Your task to perform on an android device: turn on priority inbox in the gmail app Image 0: 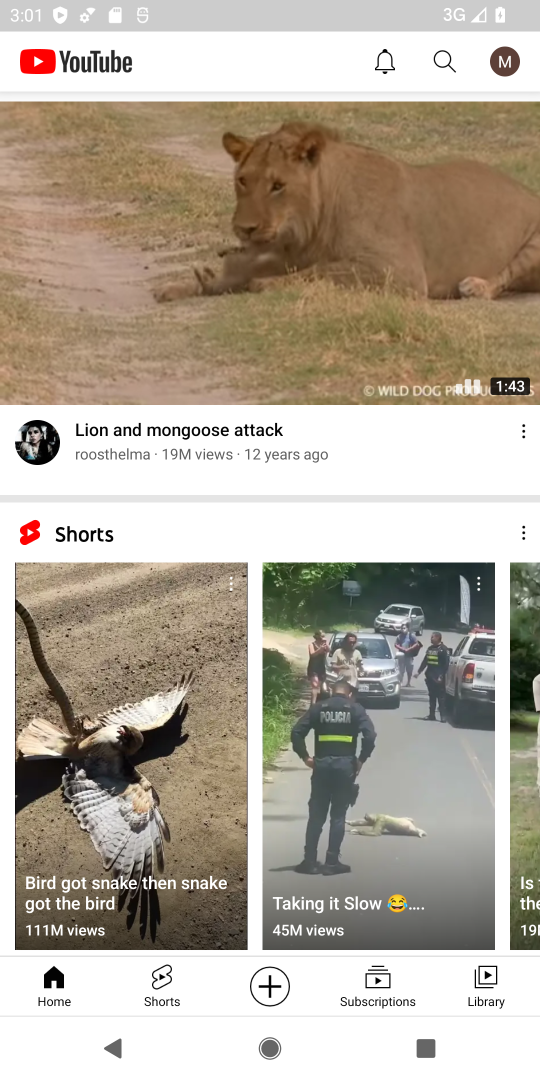
Step 0: press home button
Your task to perform on an android device: turn on priority inbox in the gmail app Image 1: 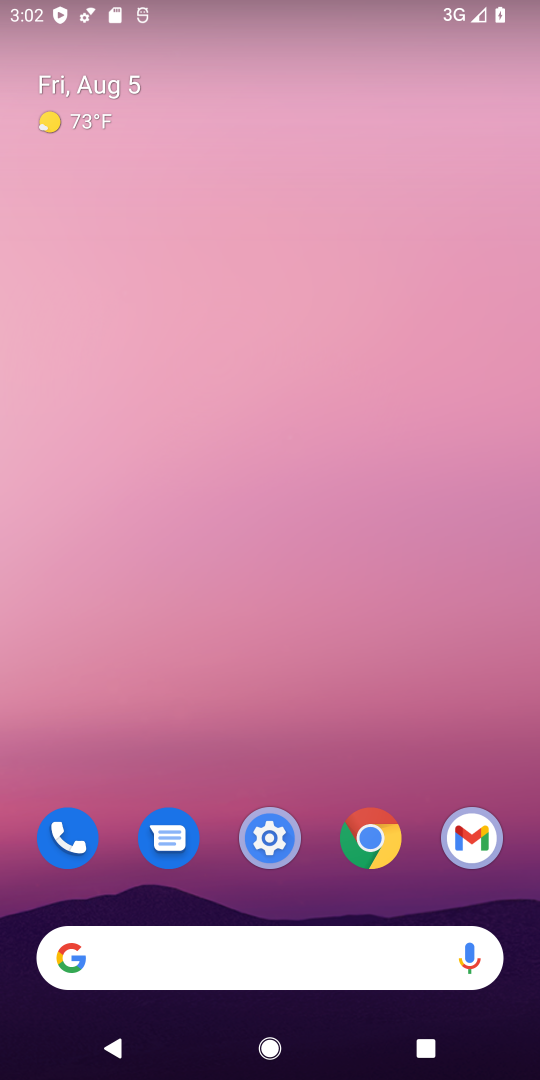
Step 1: drag from (274, 884) to (488, 332)
Your task to perform on an android device: turn on priority inbox in the gmail app Image 2: 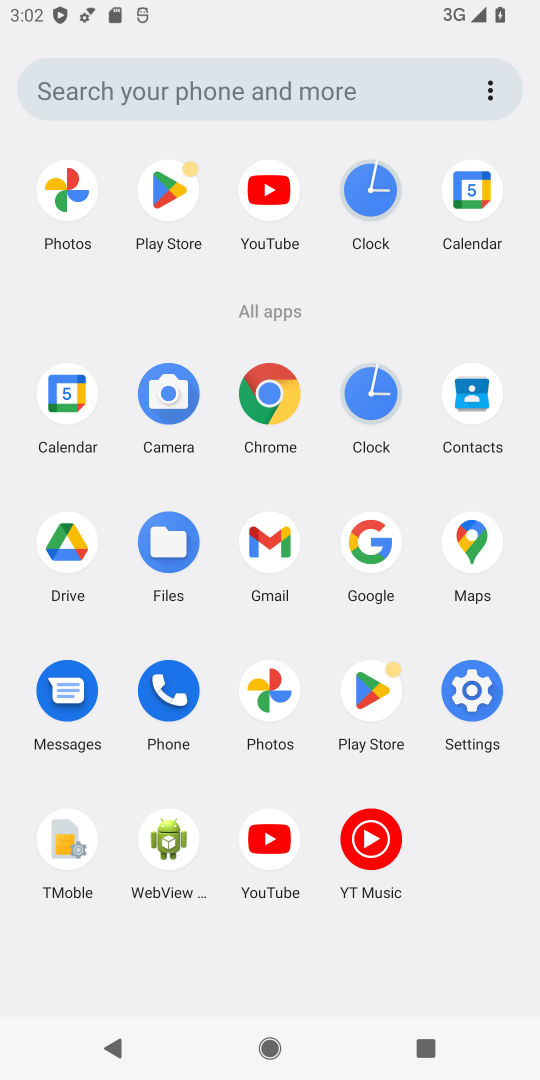
Step 2: click (270, 529)
Your task to perform on an android device: turn on priority inbox in the gmail app Image 3: 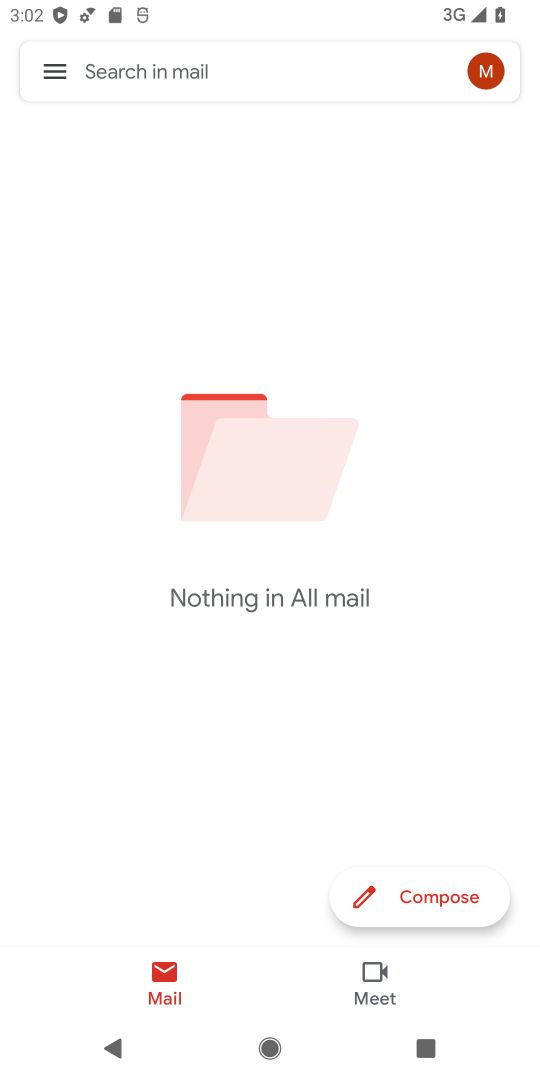
Step 3: click (55, 67)
Your task to perform on an android device: turn on priority inbox in the gmail app Image 4: 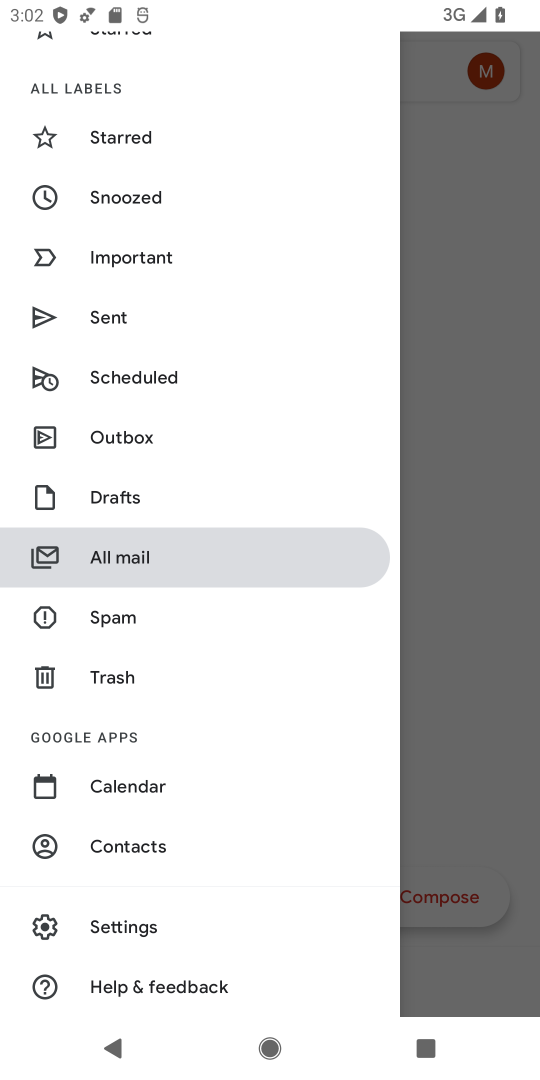
Step 4: click (148, 924)
Your task to perform on an android device: turn on priority inbox in the gmail app Image 5: 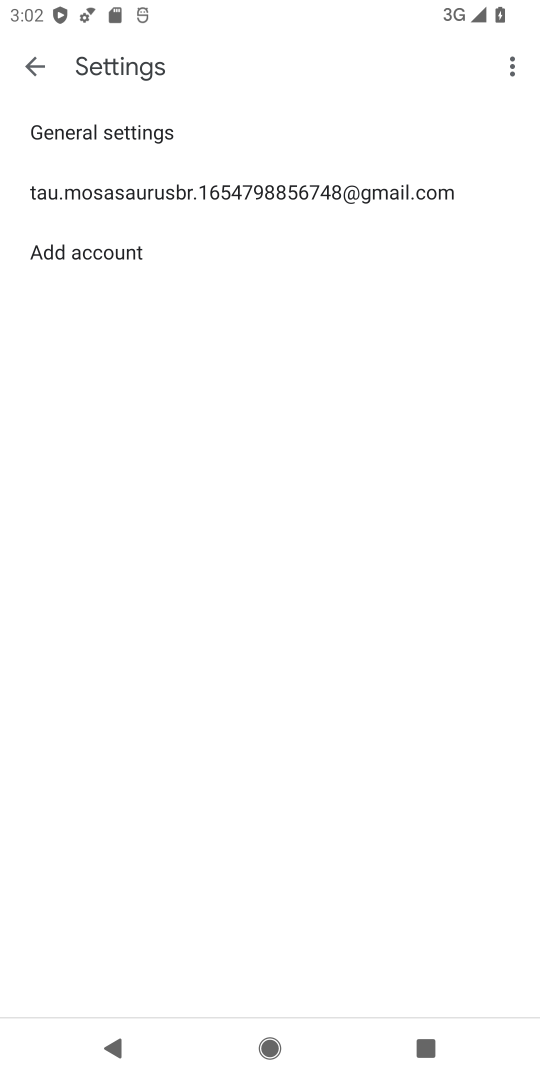
Step 5: click (105, 191)
Your task to perform on an android device: turn on priority inbox in the gmail app Image 6: 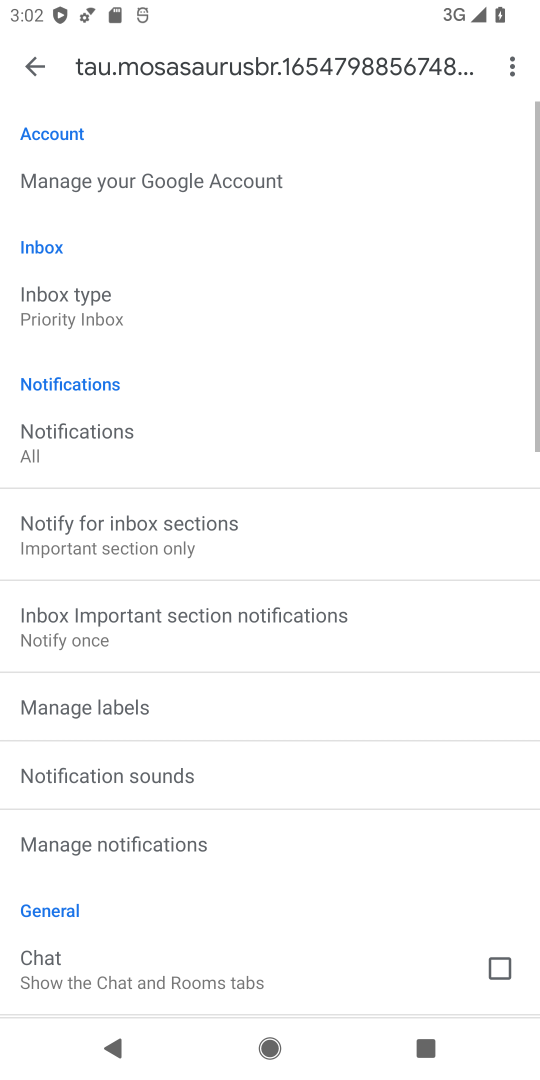
Step 6: click (103, 312)
Your task to perform on an android device: turn on priority inbox in the gmail app Image 7: 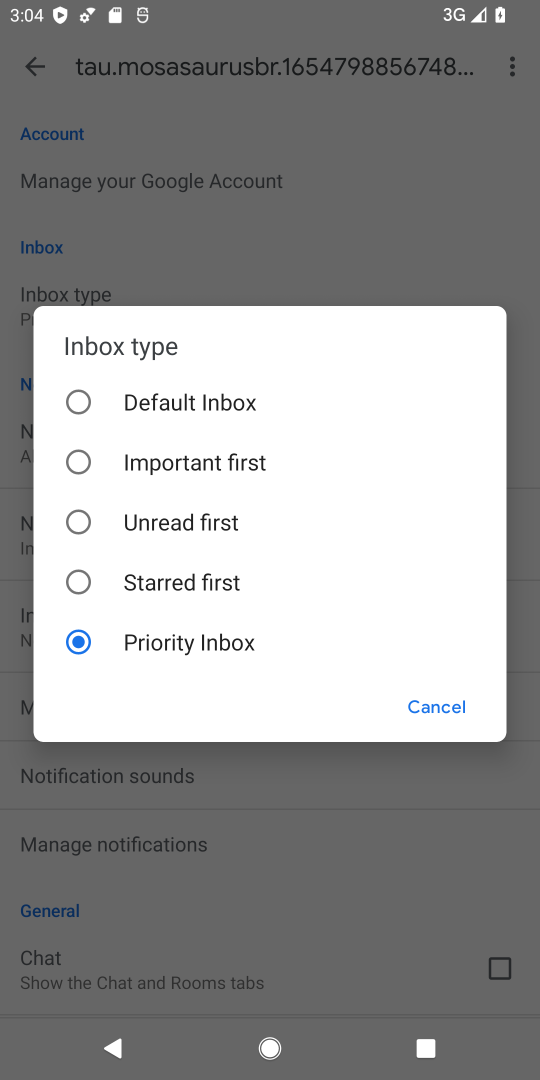
Step 7: task complete